Your task to perform on an android device: Turn off the flashlight Image 0: 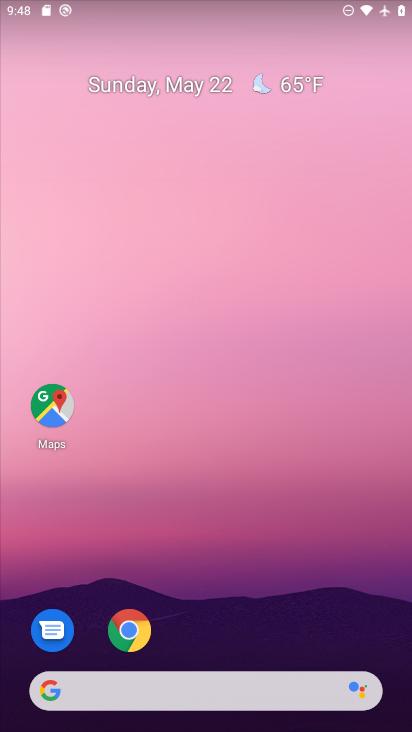
Step 0: press home button
Your task to perform on an android device: Turn off the flashlight Image 1: 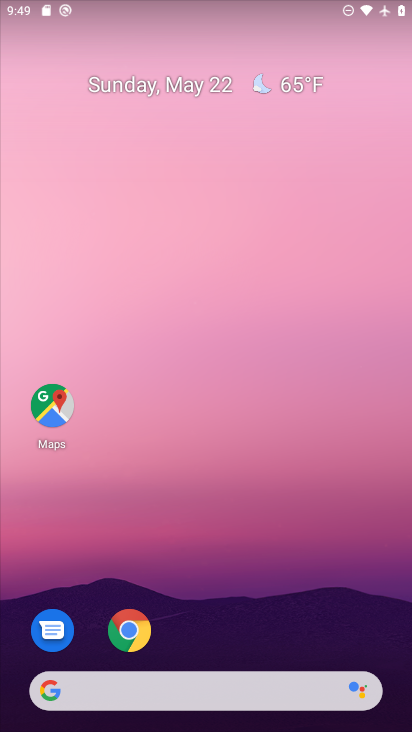
Step 1: task complete